Your task to perform on an android device: Show me productivity apps on the Play Store Image 0: 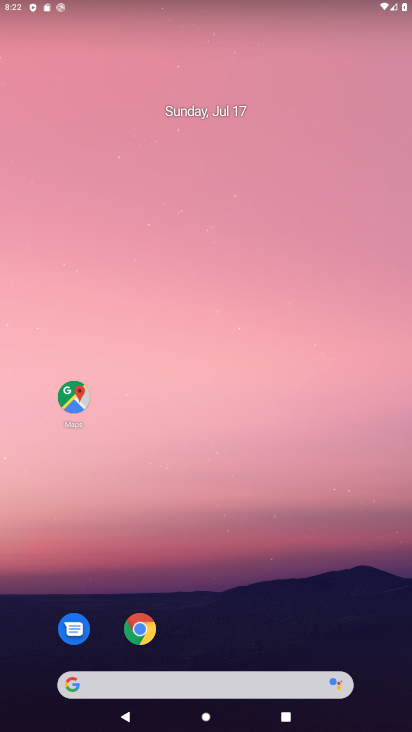
Step 0: press home button
Your task to perform on an android device: Show me productivity apps on the Play Store Image 1: 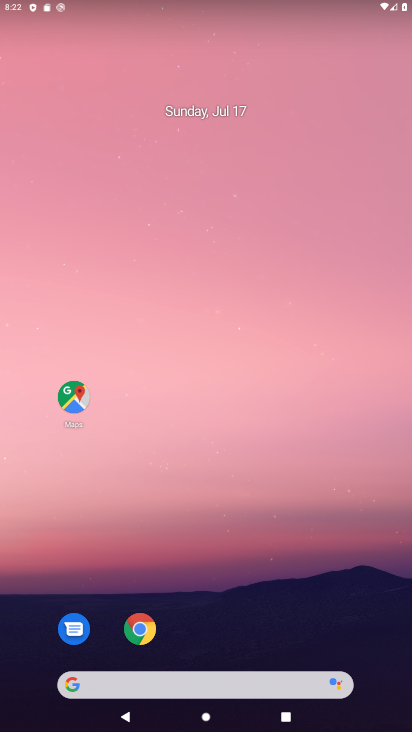
Step 1: drag from (226, 641) to (240, 5)
Your task to perform on an android device: Show me productivity apps on the Play Store Image 2: 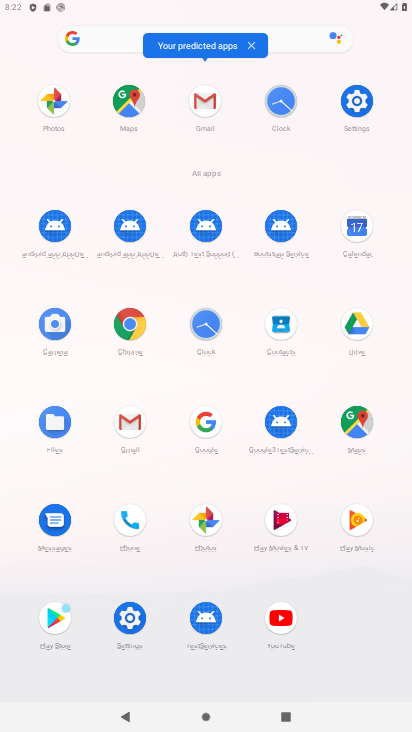
Step 2: click (59, 615)
Your task to perform on an android device: Show me productivity apps on the Play Store Image 3: 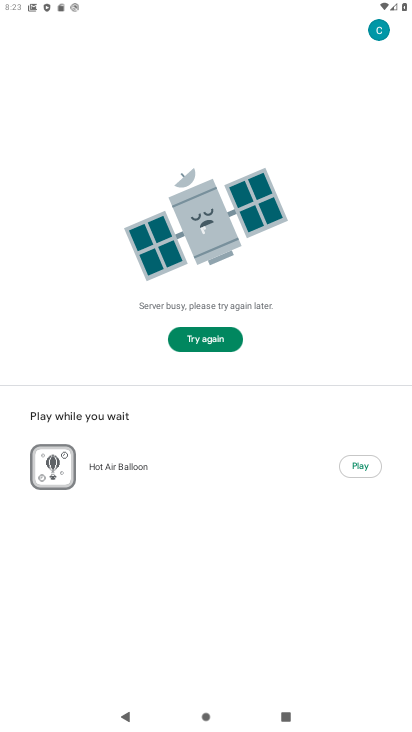
Step 3: task complete